Your task to perform on an android device: Go to location settings Image 0: 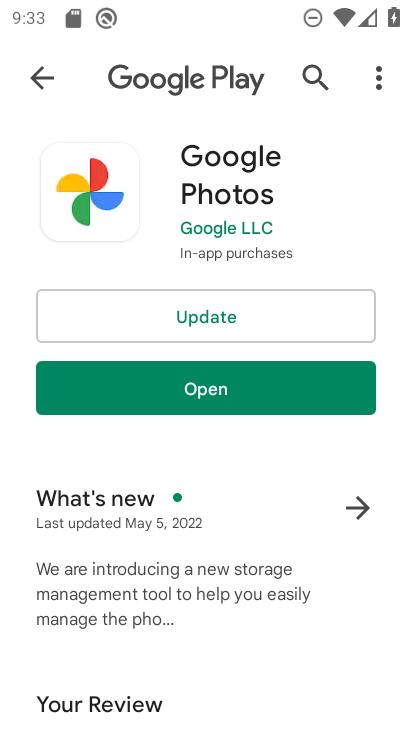
Step 0: press home button
Your task to perform on an android device: Go to location settings Image 1: 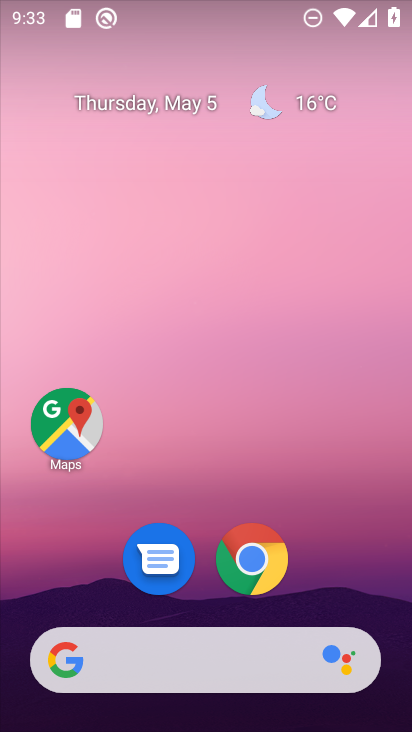
Step 1: drag from (339, 592) to (257, 0)
Your task to perform on an android device: Go to location settings Image 2: 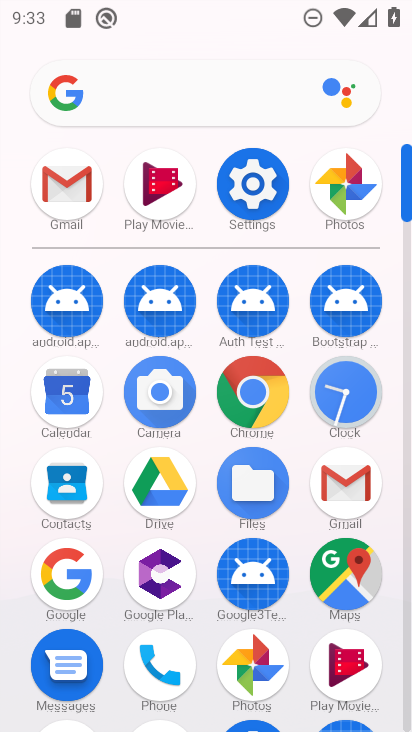
Step 2: click (244, 192)
Your task to perform on an android device: Go to location settings Image 3: 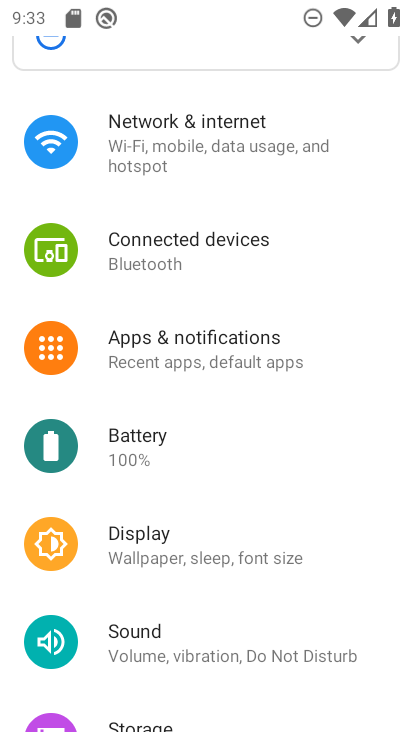
Step 3: drag from (317, 585) to (288, 300)
Your task to perform on an android device: Go to location settings Image 4: 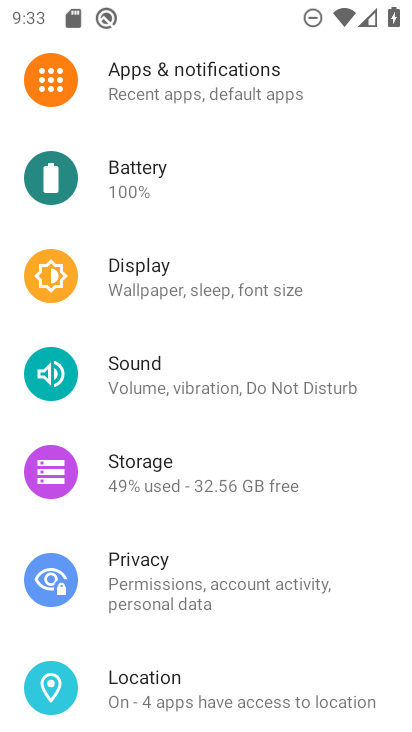
Step 4: drag from (307, 585) to (291, 236)
Your task to perform on an android device: Go to location settings Image 5: 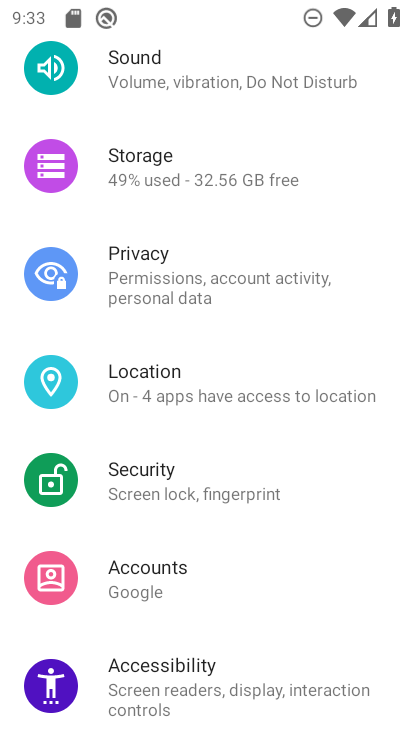
Step 5: click (157, 380)
Your task to perform on an android device: Go to location settings Image 6: 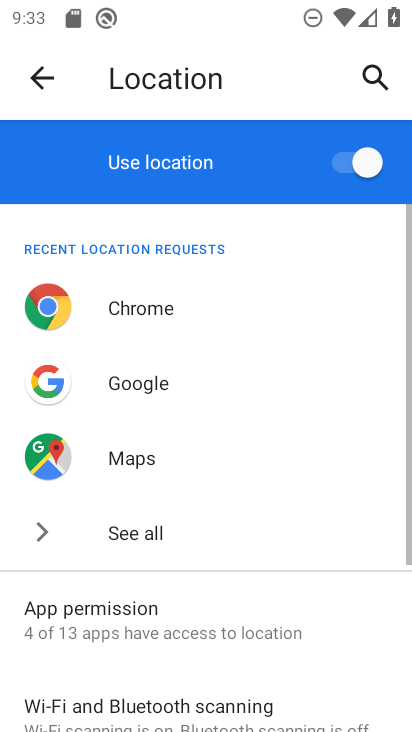
Step 6: task complete